Your task to perform on an android device: Open Reddit.com Image 0: 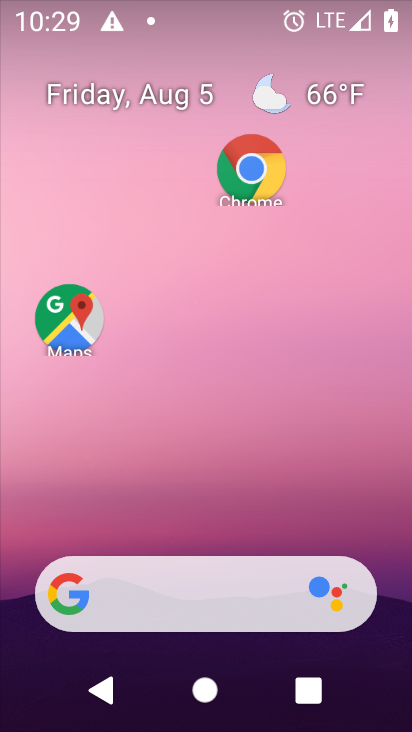
Step 0: click (267, 182)
Your task to perform on an android device: Open Reddit.com Image 1: 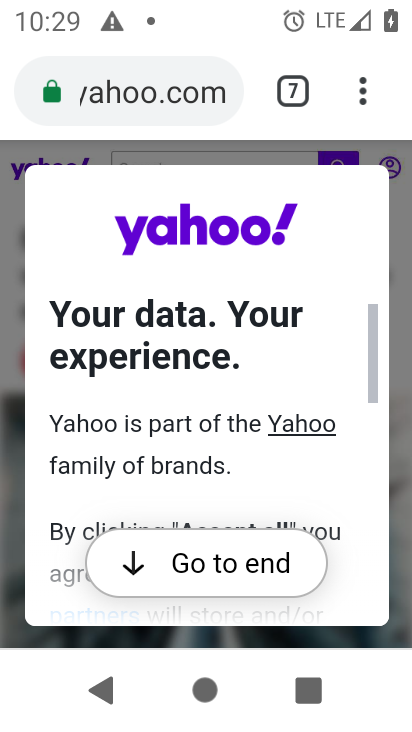
Step 1: click (273, 100)
Your task to perform on an android device: Open Reddit.com Image 2: 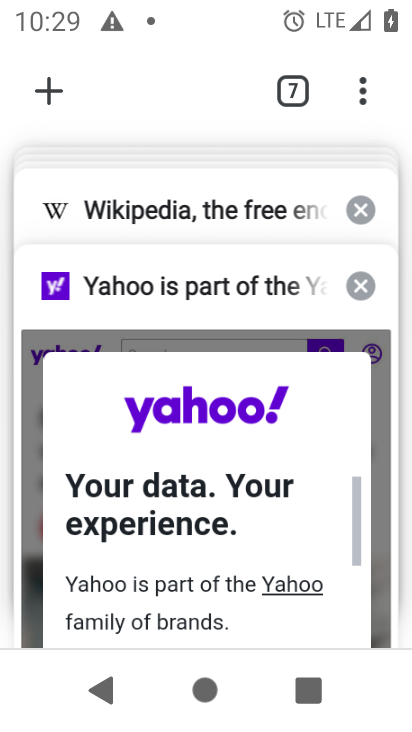
Step 2: click (53, 69)
Your task to perform on an android device: Open Reddit.com Image 3: 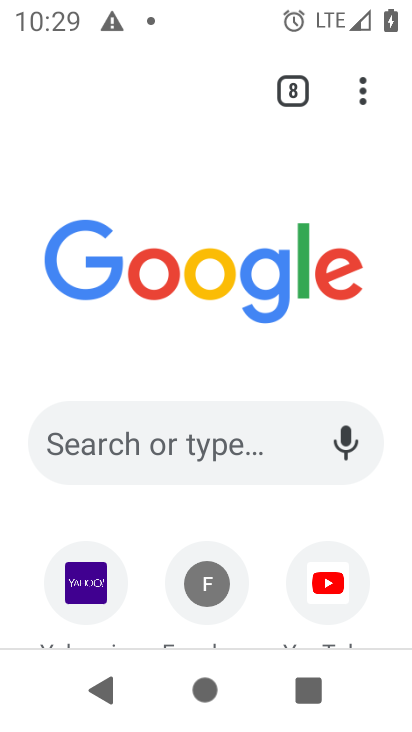
Step 3: click (154, 445)
Your task to perform on an android device: Open Reddit.com Image 4: 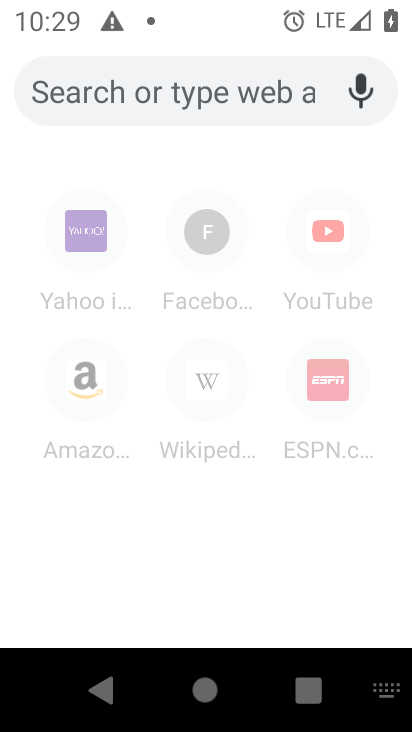
Step 4: type "Reddit.com"
Your task to perform on an android device: Open Reddit.com Image 5: 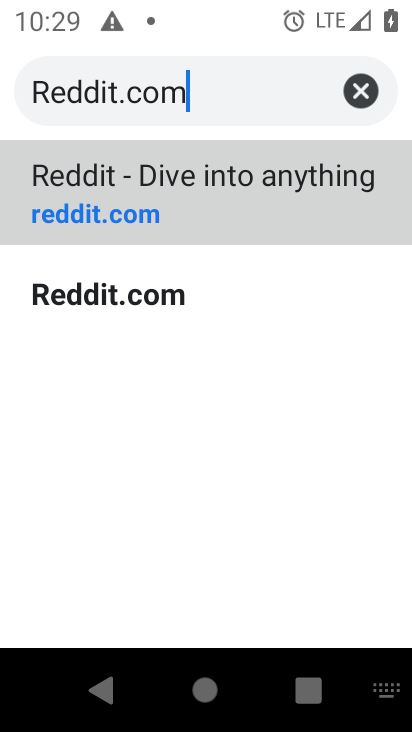
Step 5: type ""
Your task to perform on an android device: Open Reddit.com Image 6: 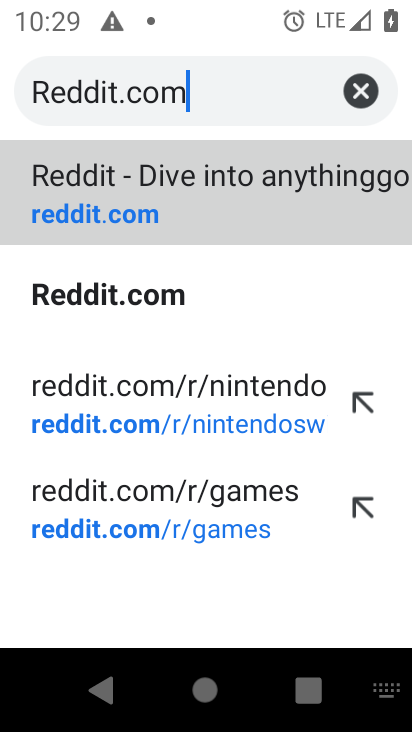
Step 6: click (146, 200)
Your task to perform on an android device: Open Reddit.com Image 7: 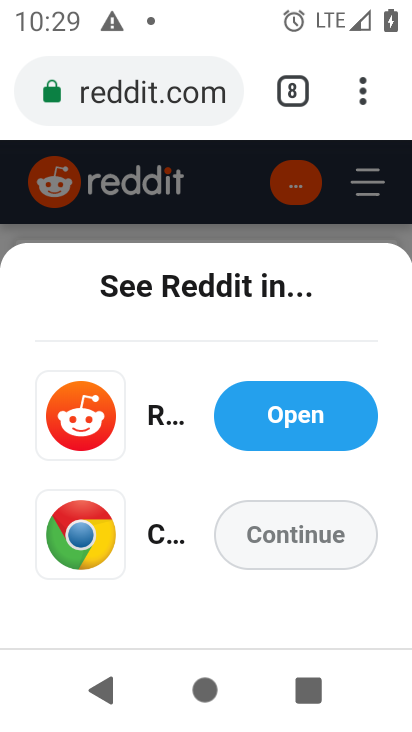
Step 7: click (314, 526)
Your task to perform on an android device: Open Reddit.com Image 8: 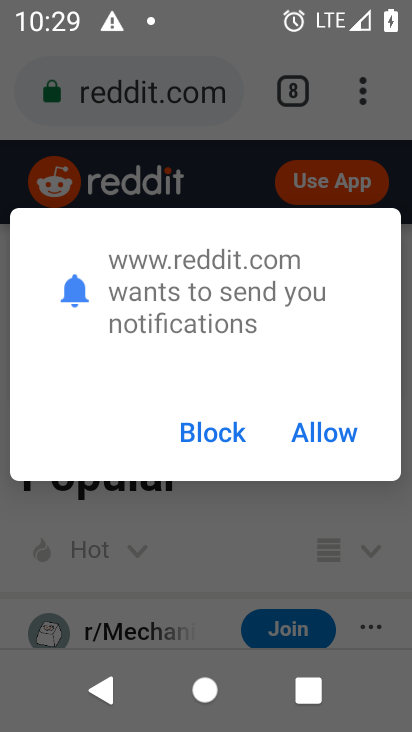
Step 8: task complete